Your task to perform on an android device: Do I have any events today? Image 0: 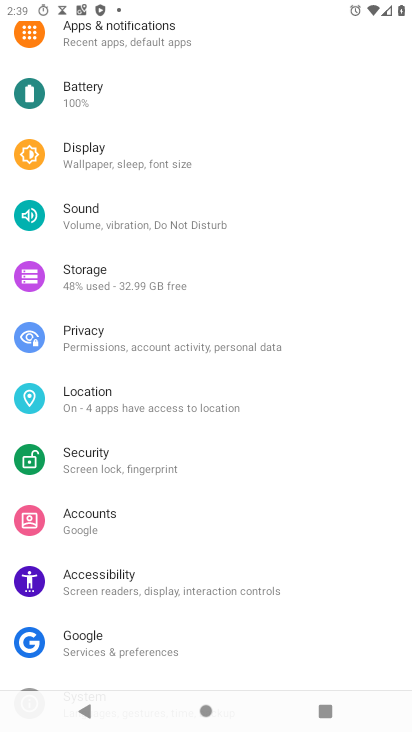
Step 0: press home button
Your task to perform on an android device: Do I have any events today? Image 1: 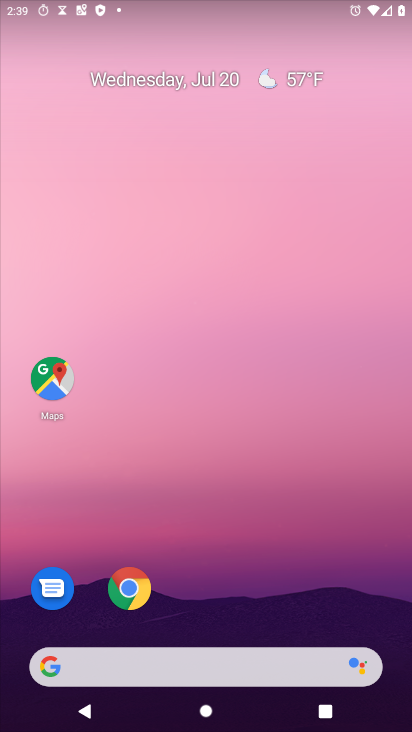
Step 1: drag from (240, 686) to (217, 0)
Your task to perform on an android device: Do I have any events today? Image 2: 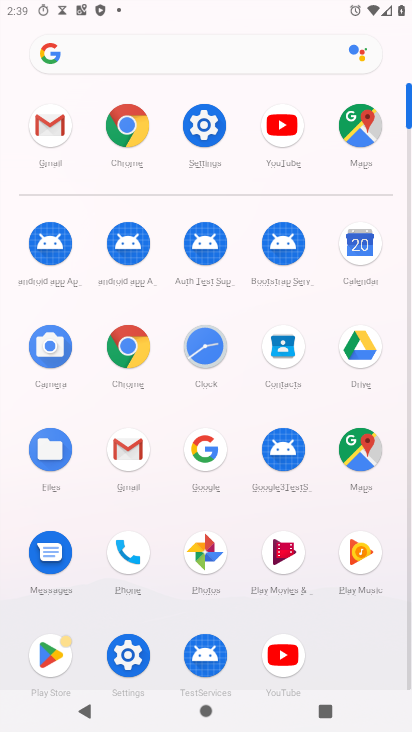
Step 2: click (360, 252)
Your task to perform on an android device: Do I have any events today? Image 3: 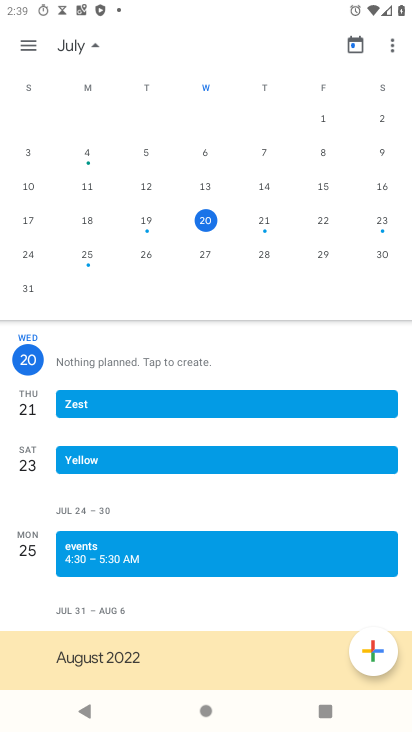
Step 3: click (208, 215)
Your task to perform on an android device: Do I have any events today? Image 4: 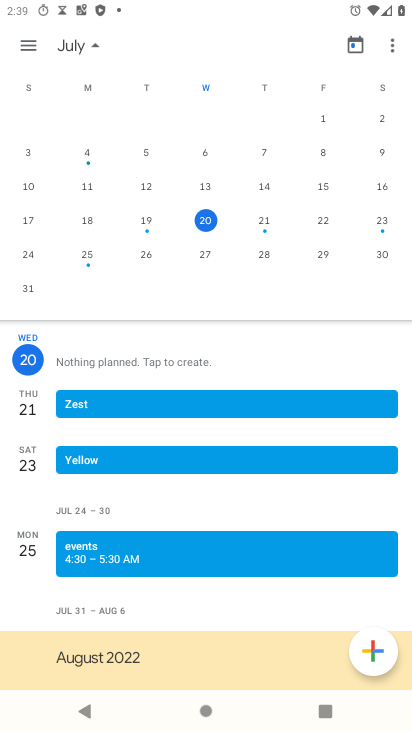
Step 4: task complete